Your task to perform on an android device: Go to Reddit.com Image 0: 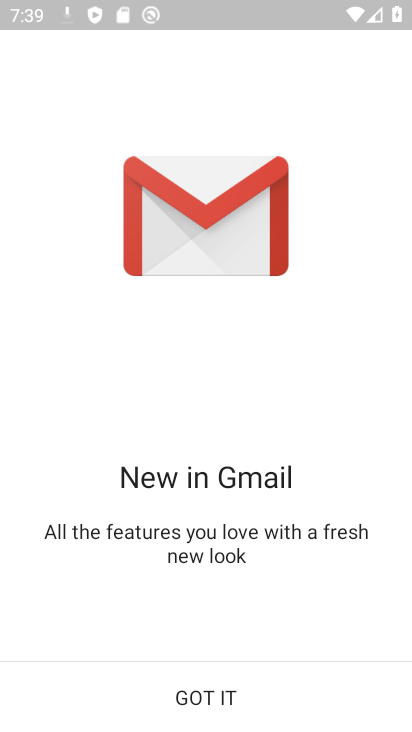
Step 0: click (208, 695)
Your task to perform on an android device: Go to Reddit.com Image 1: 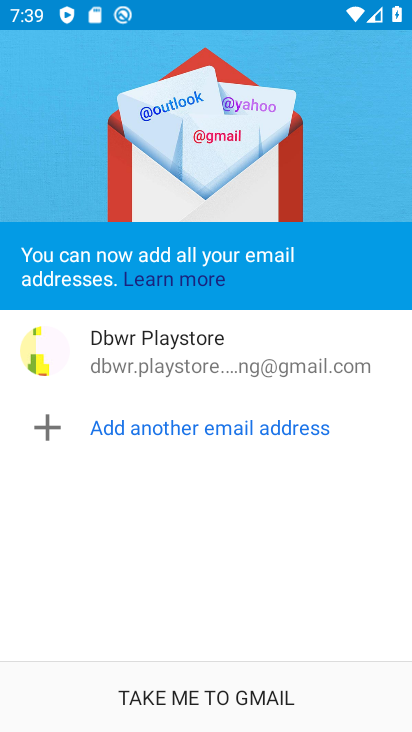
Step 1: click (273, 703)
Your task to perform on an android device: Go to Reddit.com Image 2: 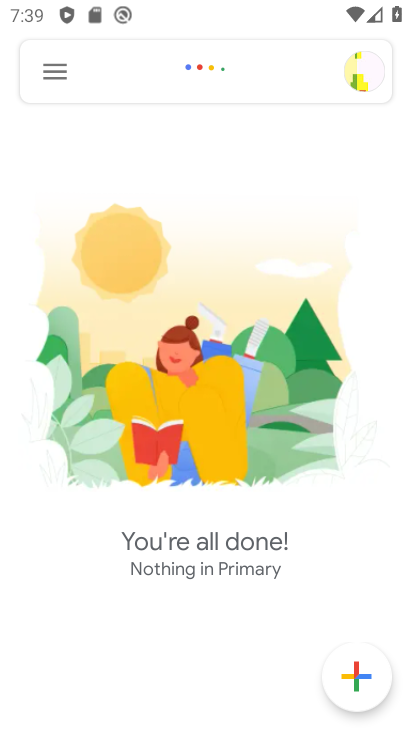
Step 2: press home button
Your task to perform on an android device: Go to Reddit.com Image 3: 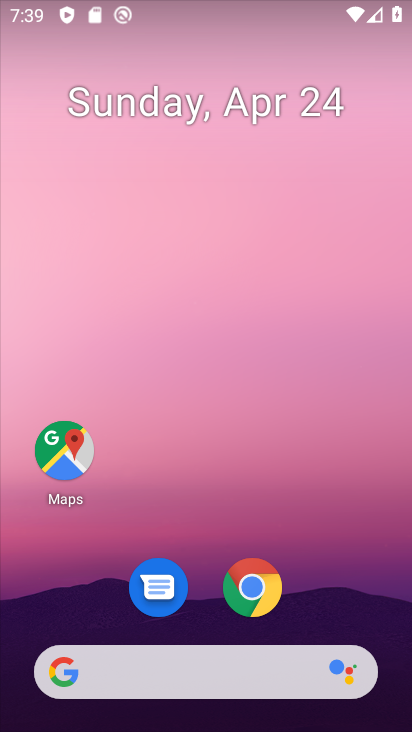
Step 3: drag from (335, 528) to (339, 9)
Your task to perform on an android device: Go to Reddit.com Image 4: 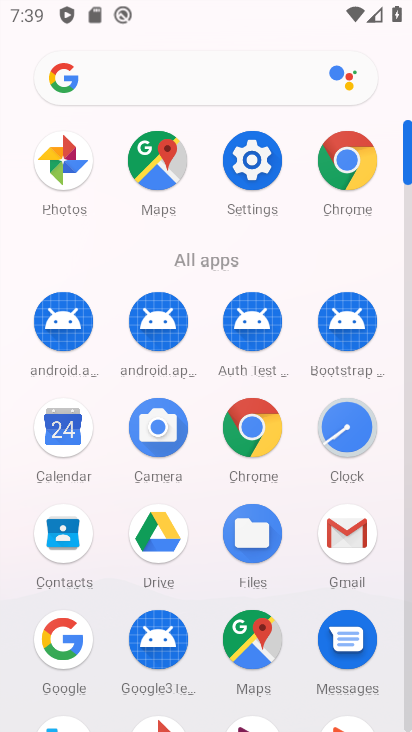
Step 4: click (361, 155)
Your task to perform on an android device: Go to Reddit.com Image 5: 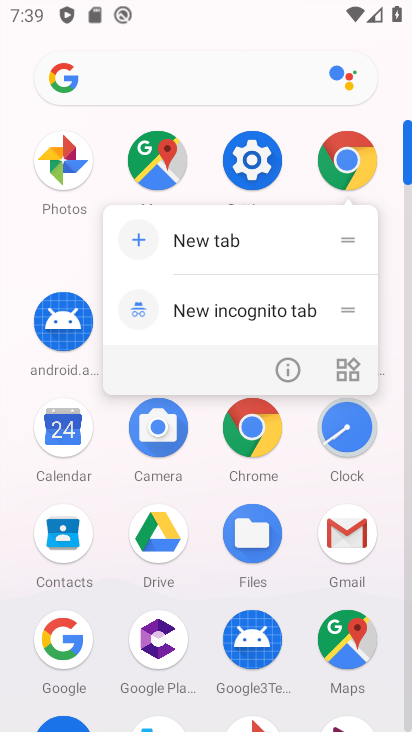
Step 5: click (361, 156)
Your task to perform on an android device: Go to Reddit.com Image 6: 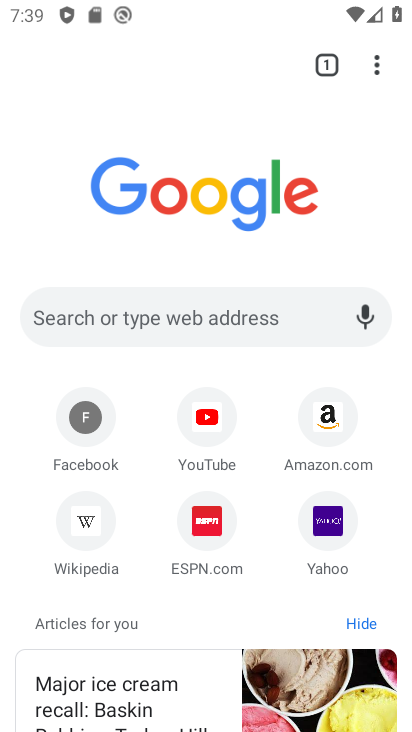
Step 6: click (234, 315)
Your task to perform on an android device: Go to Reddit.com Image 7: 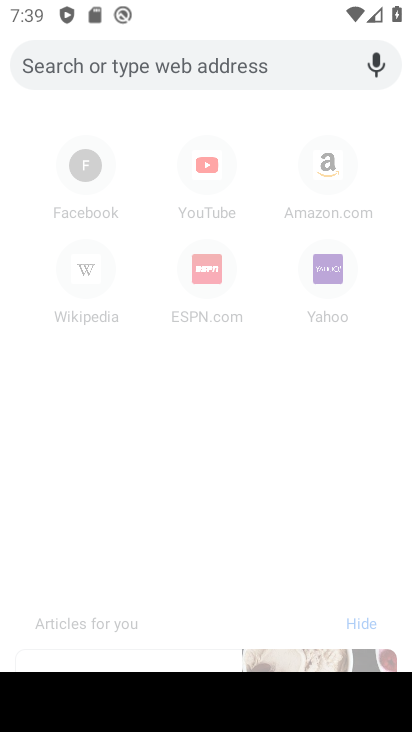
Step 7: type "reddit.com"
Your task to perform on an android device: Go to Reddit.com Image 8: 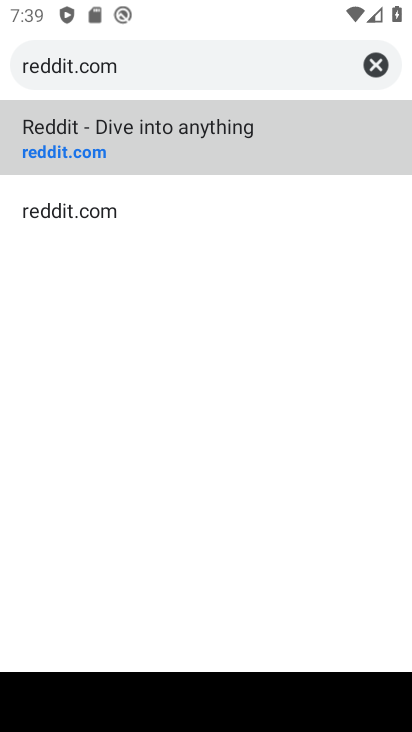
Step 8: click (82, 134)
Your task to perform on an android device: Go to Reddit.com Image 9: 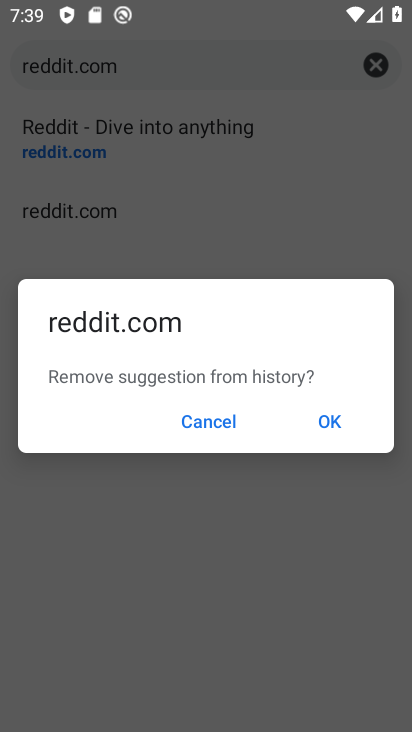
Step 9: click (322, 421)
Your task to perform on an android device: Go to Reddit.com Image 10: 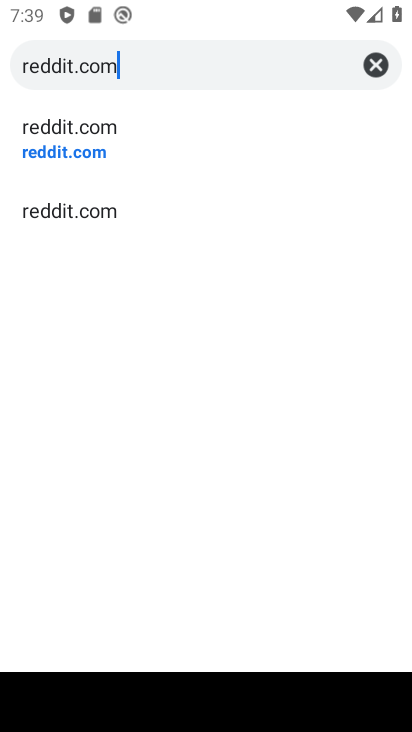
Step 10: click (84, 206)
Your task to perform on an android device: Go to Reddit.com Image 11: 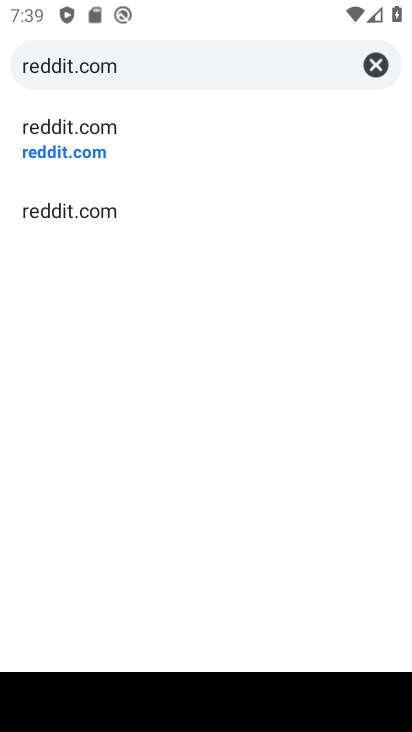
Step 11: click (86, 207)
Your task to perform on an android device: Go to Reddit.com Image 12: 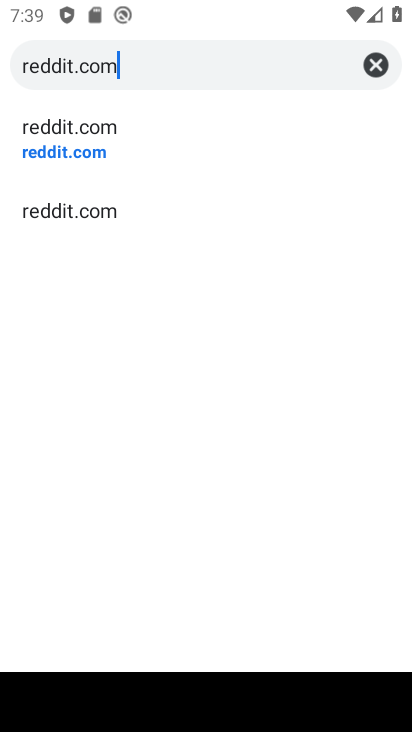
Step 12: click (48, 208)
Your task to perform on an android device: Go to Reddit.com Image 13: 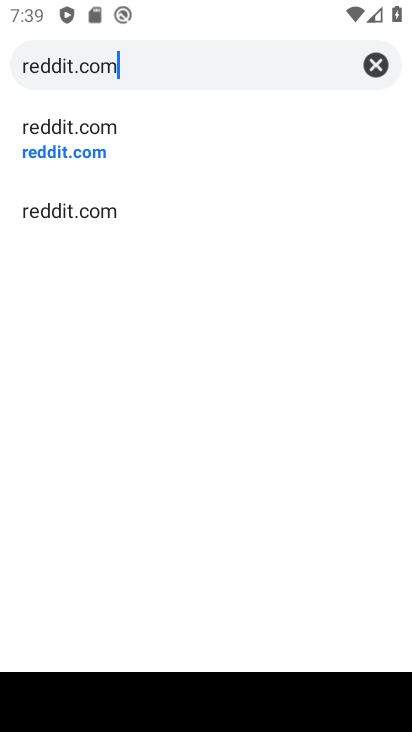
Step 13: click (55, 213)
Your task to perform on an android device: Go to Reddit.com Image 14: 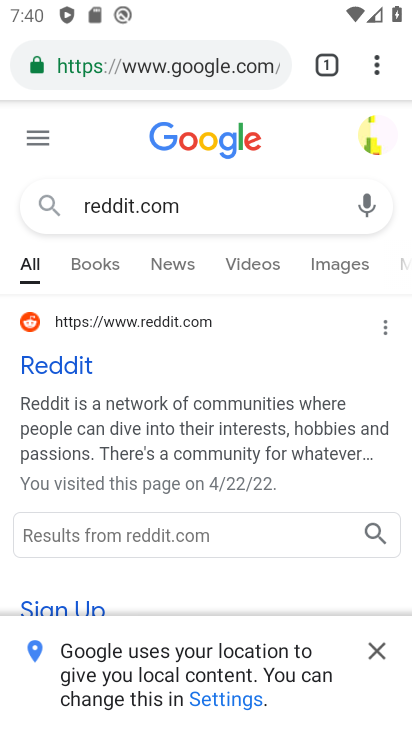
Step 14: click (43, 366)
Your task to perform on an android device: Go to Reddit.com Image 15: 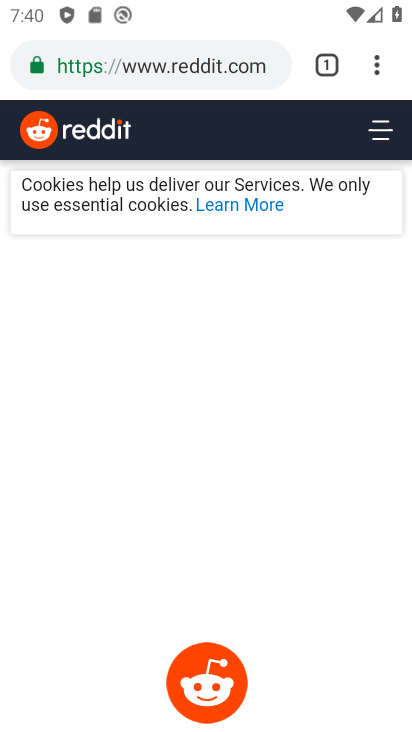
Step 15: task complete